Your task to perform on an android device: turn on javascript in the chrome app Image 0: 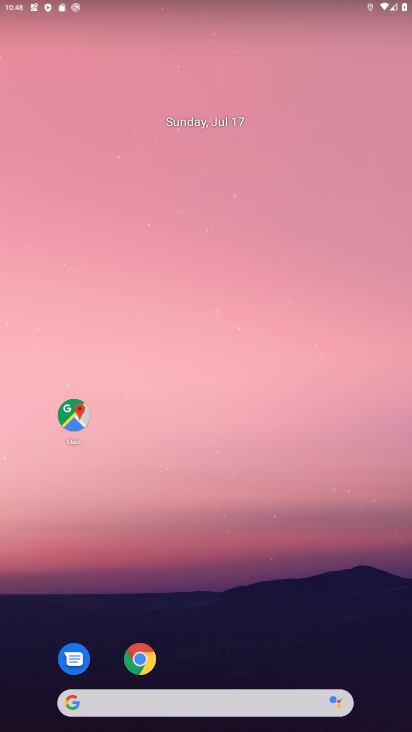
Step 0: drag from (279, 653) to (221, 75)
Your task to perform on an android device: turn on javascript in the chrome app Image 1: 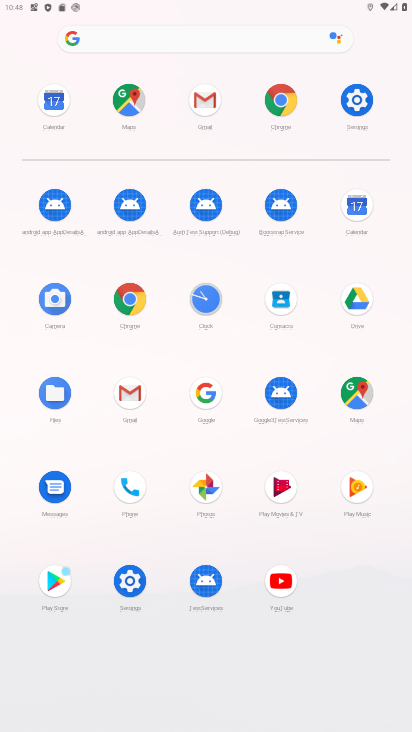
Step 1: click (283, 103)
Your task to perform on an android device: turn on javascript in the chrome app Image 2: 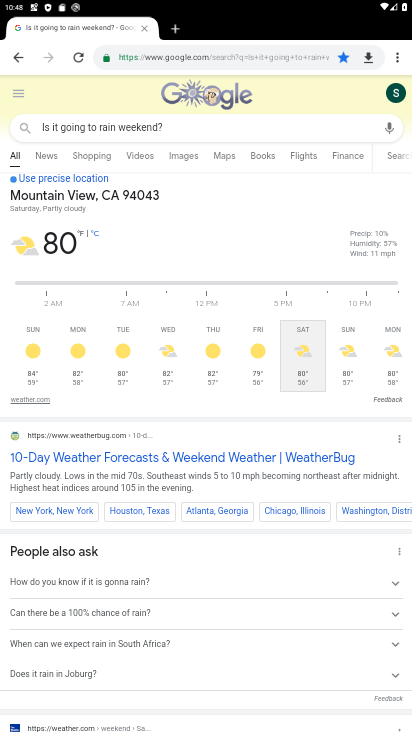
Step 2: drag from (399, 55) to (273, 391)
Your task to perform on an android device: turn on javascript in the chrome app Image 3: 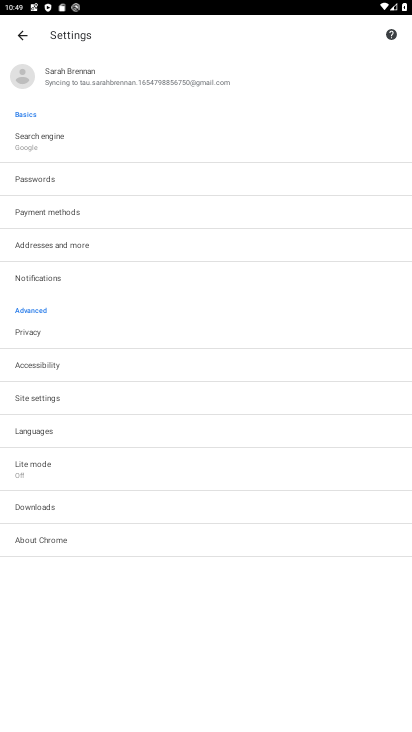
Step 3: click (61, 393)
Your task to perform on an android device: turn on javascript in the chrome app Image 4: 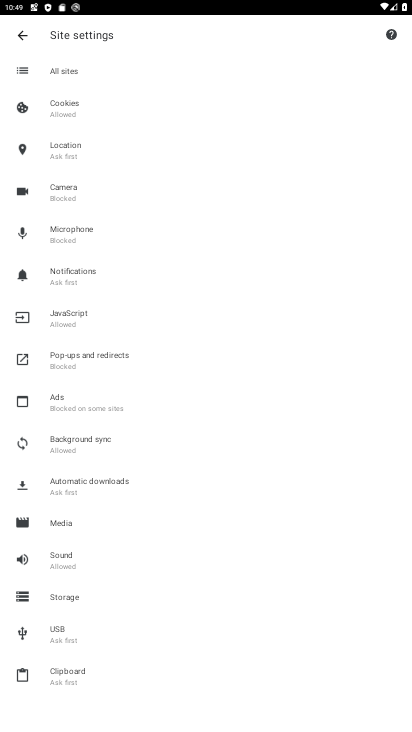
Step 4: click (90, 318)
Your task to perform on an android device: turn on javascript in the chrome app Image 5: 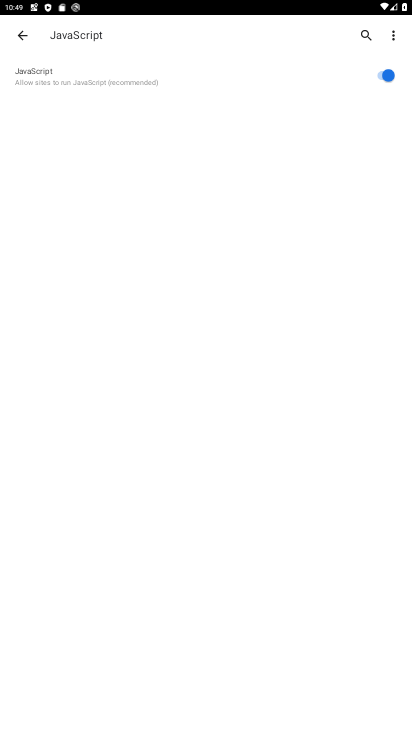
Step 5: task complete